Your task to perform on an android device: What is the news today? Image 0: 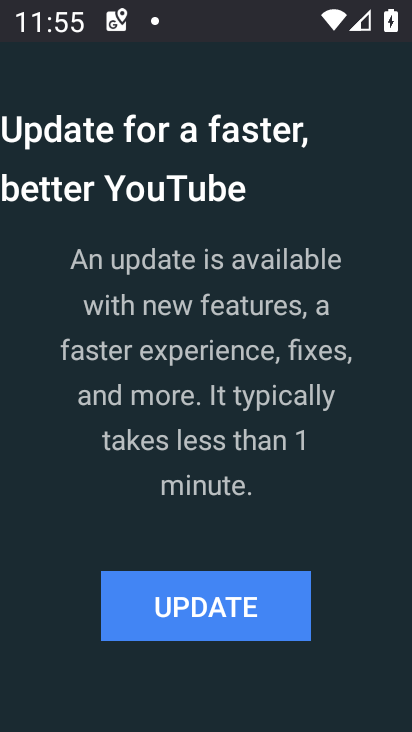
Step 0: press home button
Your task to perform on an android device: What is the news today? Image 1: 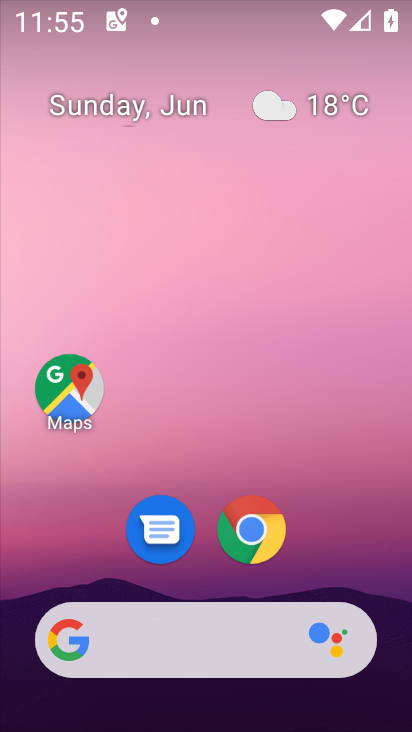
Step 1: click (354, 105)
Your task to perform on an android device: What is the news today? Image 2: 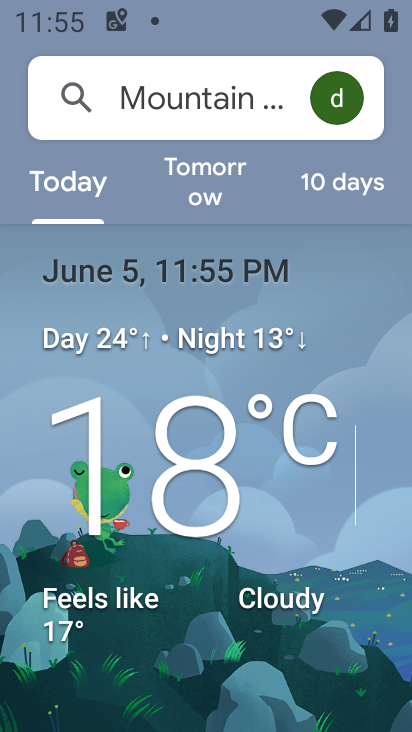
Step 2: task complete